Your task to perform on an android device: change keyboard looks Image 0: 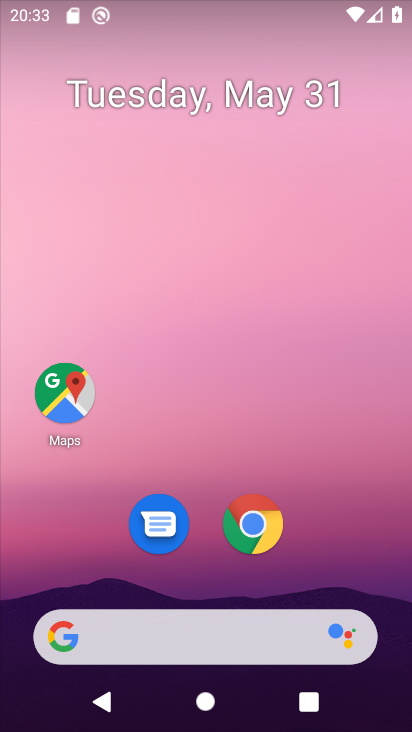
Step 0: drag from (322, 545) to (274, 72)
Your task to perform on an android device: change keyboard looks Image 1: 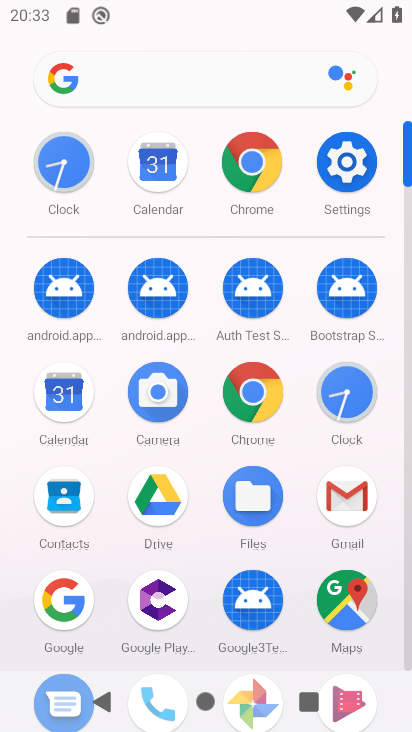
Step 1: click (335, 154)
Your task to perform on an android device: change keyboard looks Image 2: 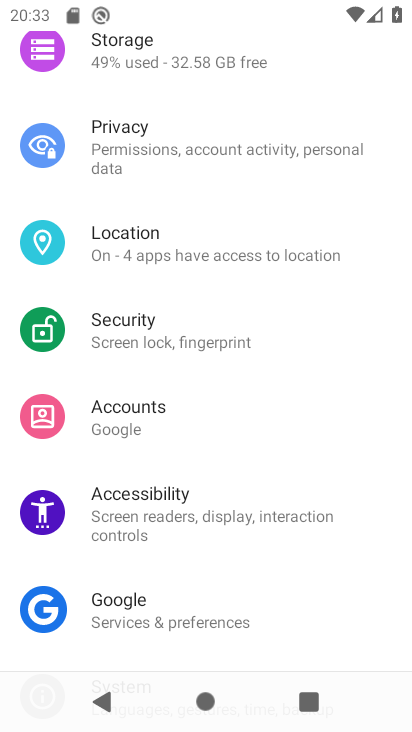
Step 2: drag from (223, 454) to (244, 113)
Your task to perform on an android device: change keyboard looks Image 3: 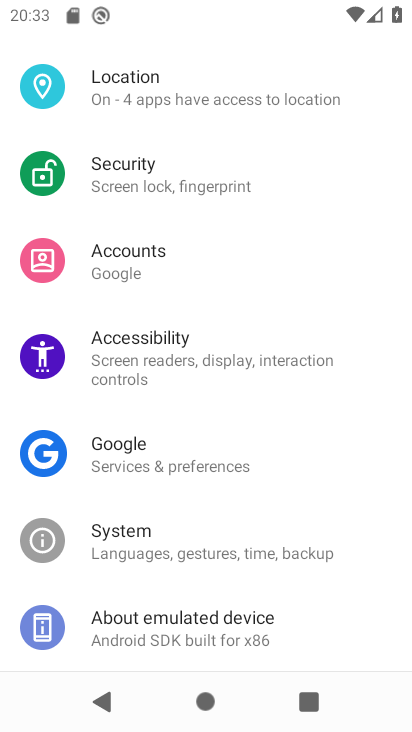
Step 3: click (185, 534)
Your task to perform on an android device: change keyboard looks Image 4: 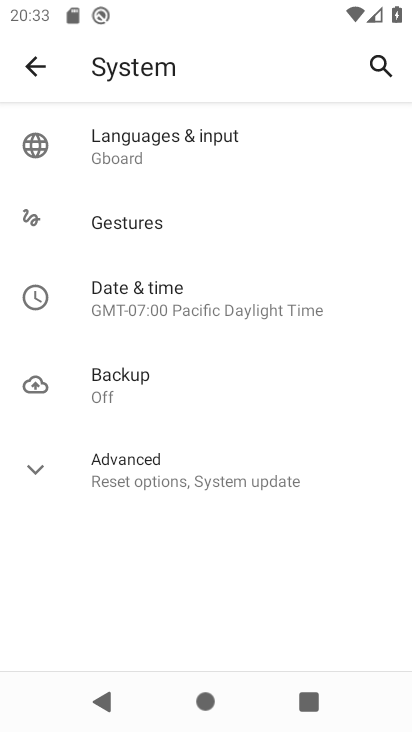
Step 4: click (179, 150)
Your task to perform on an android device: change keyboard looks Image 5: 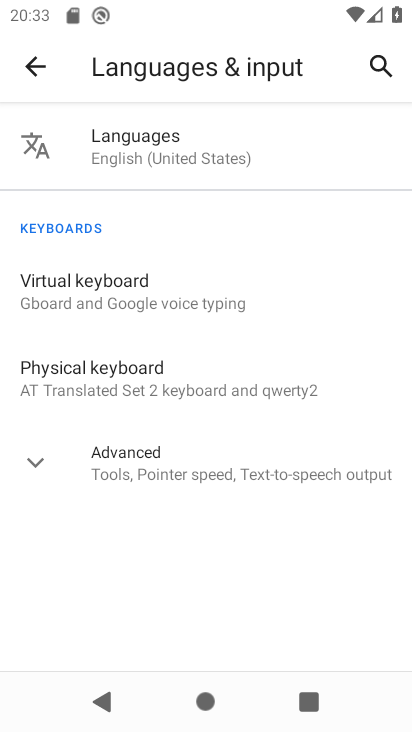
Step 5: click (123, 281)
Your task to perform on an android device: change keyboard looks Image 6: 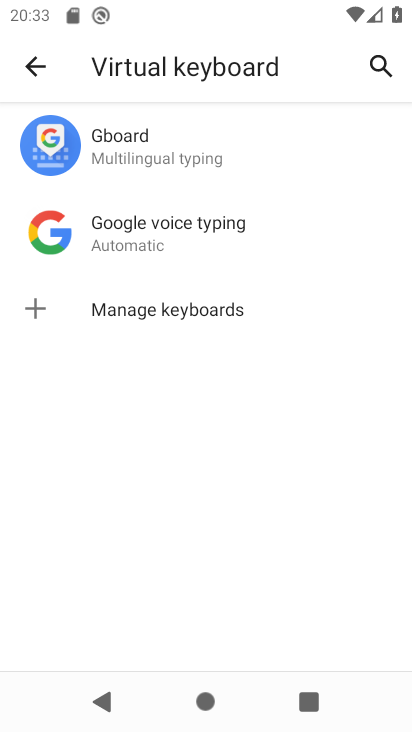
Step 6: click (158, 158)
Your task to perform on an android device: change keyboard looks Image 7: 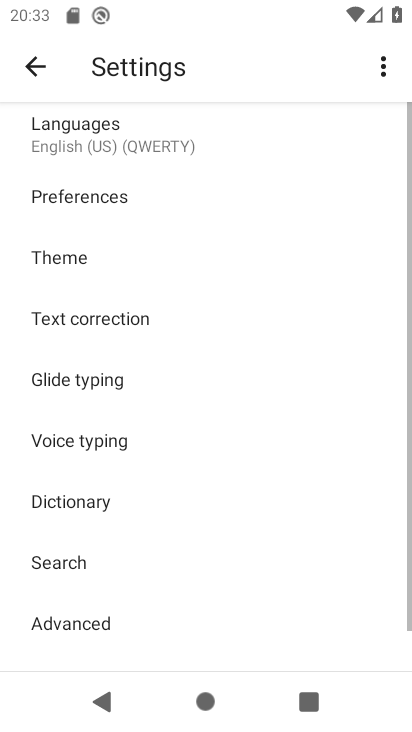
Step 7: click (108, 254)
Your task to perform on an android device: change keyboard looks Image 8: 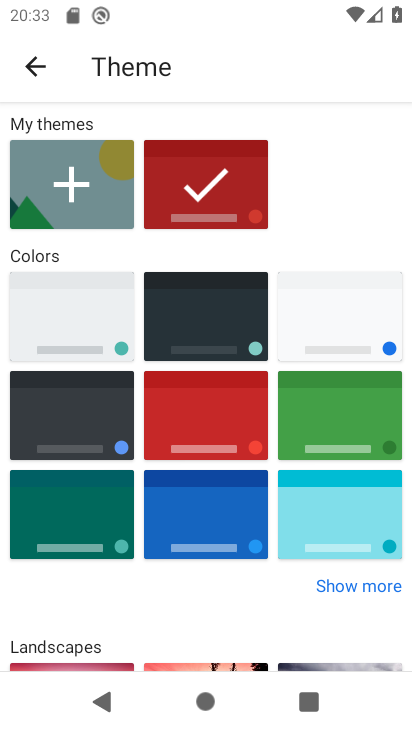
Step 8: click (319, 409)
Your task to perform on an android device: change keyboard looks Image 9: 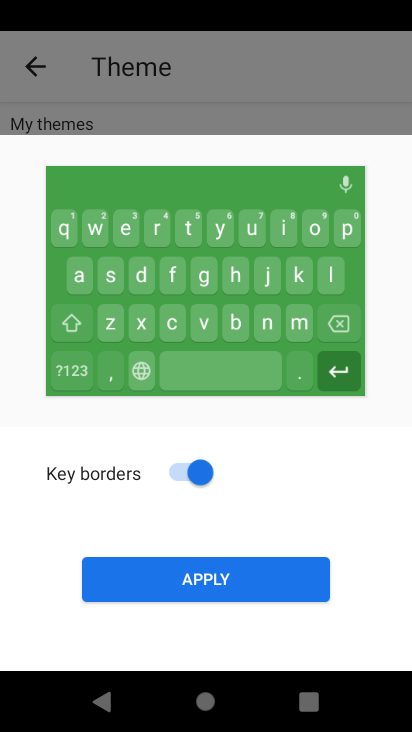
Step 9: click (260, 570)
Your task to perform on an android device: change keyboard looks Image 10: 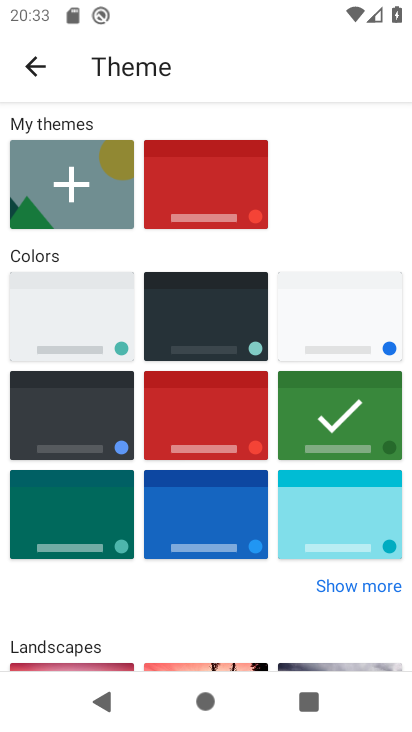
Step 10: task complete